Your task to perform on an android device: create a new album in the google photos Image 0: 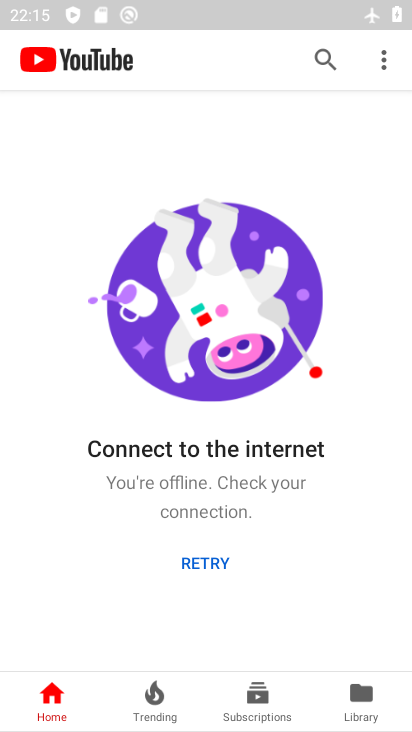
Step 0: press home button
Your task to perform on an android device: create a new album in the google photos Image 1: 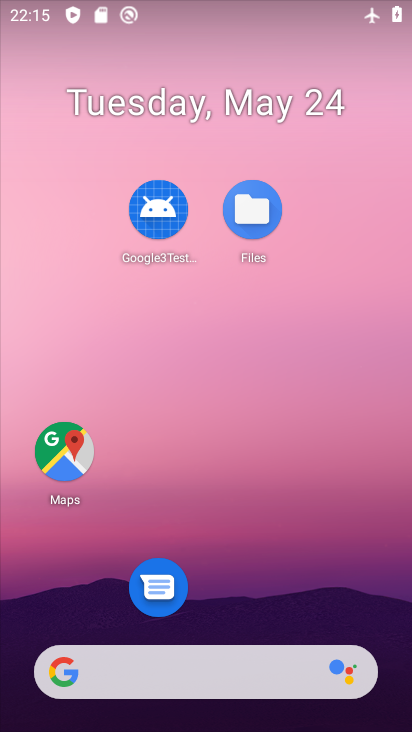
Step 1: drag from (220, 622) to (192, 112)
Your task to perform on an android device: create a new album in the google photos Image 2: 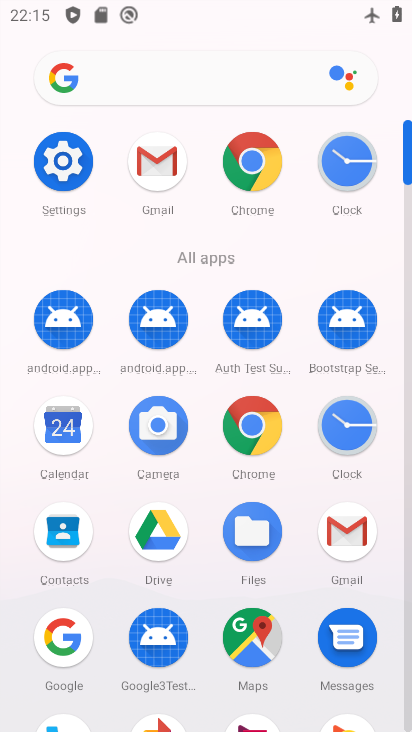
Step 2: click (152, 729)
Your task to perform on an android device: create a new album in the google photos Image 3: 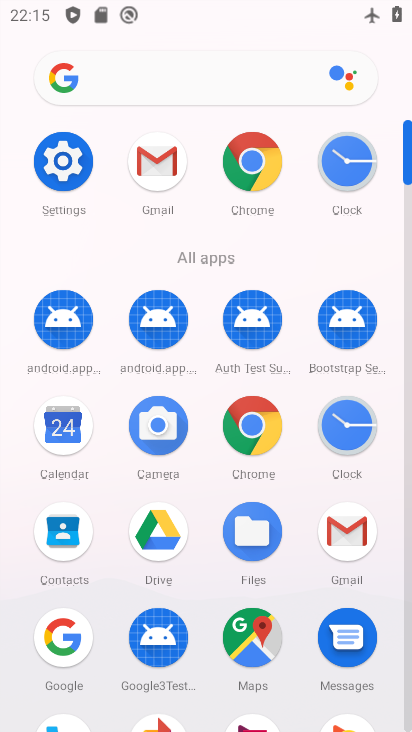
Step 3: click (152, 729)
Your task to perform on an android device: create a new album in the google photos Image 4: 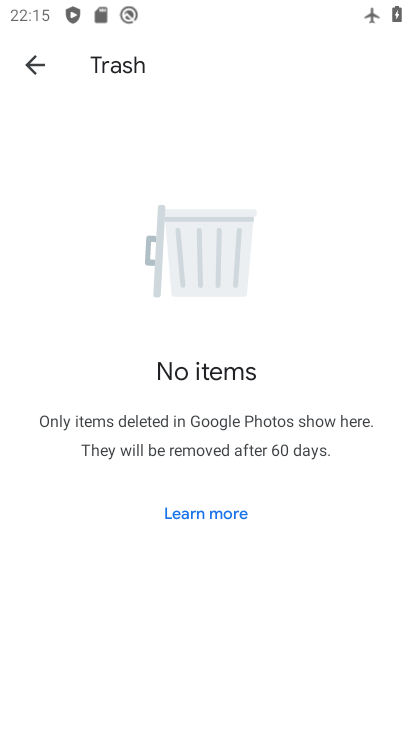
Step 4: click (24, 50)
Your task to perform on an android device: create a new album in the google photos Image 5: 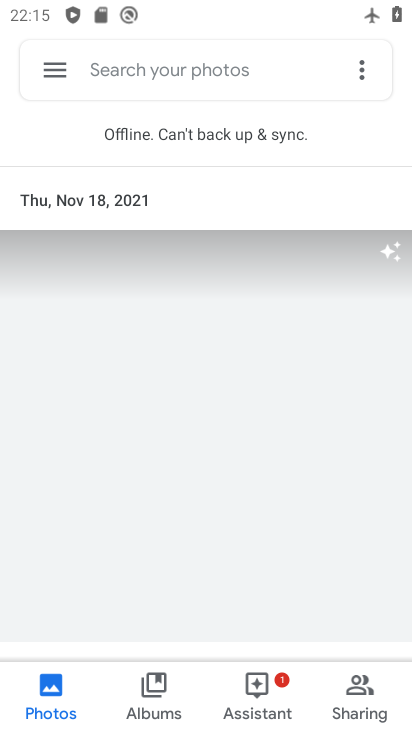
Step 5: click (205, 142)
Your task to perform on an android device: create a new album in the google photos Image 6: 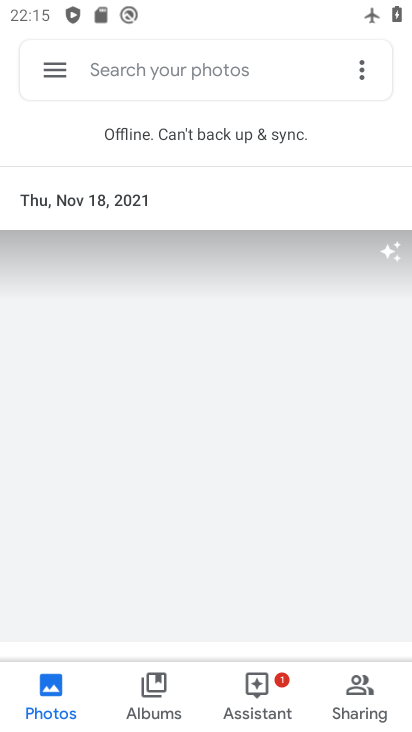
Step 6: task complete